Your task to perform on an android device: turn off location history Image 0: 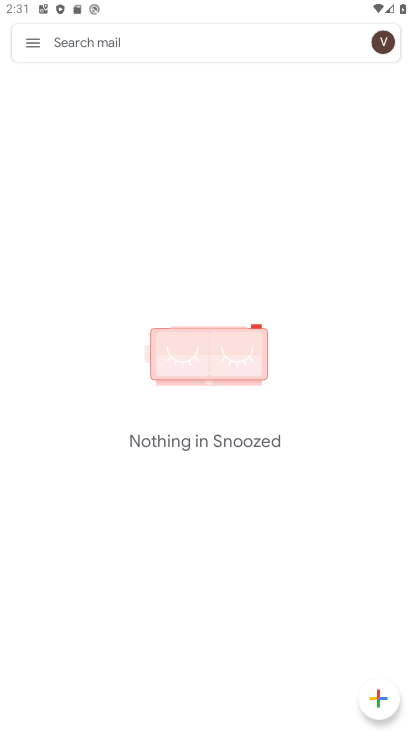
Step 0: press home button
Your task to perform on an android device: turn off location history Image 1: 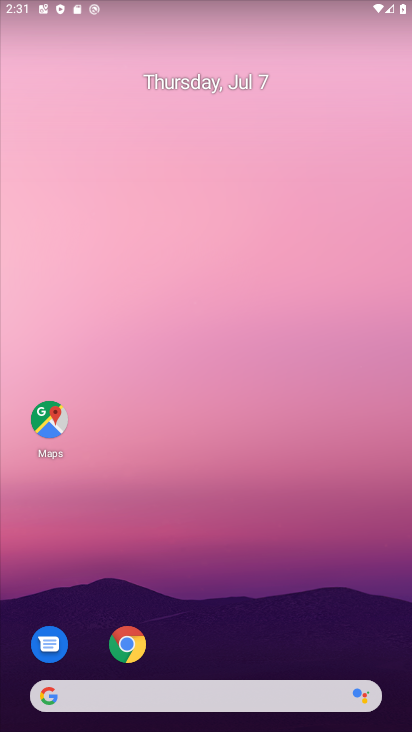
Step 1: drag from (220, 631) to (234, 181)
Your task to perform on an android device: turn off location history Image 2: 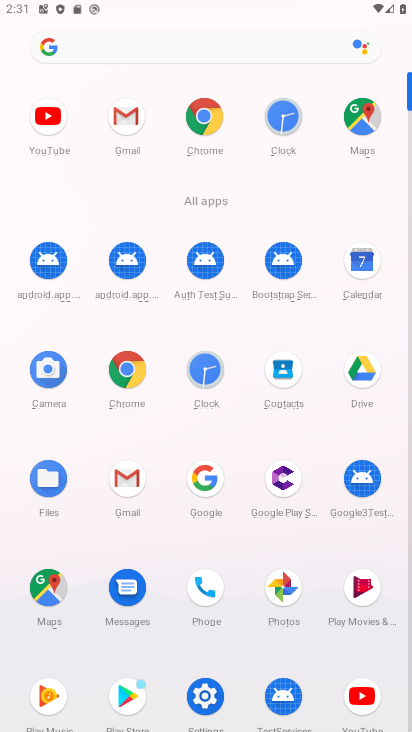
Step 2: click (208, 701)
Your task to perform on an android device: turn off location history Image 3: 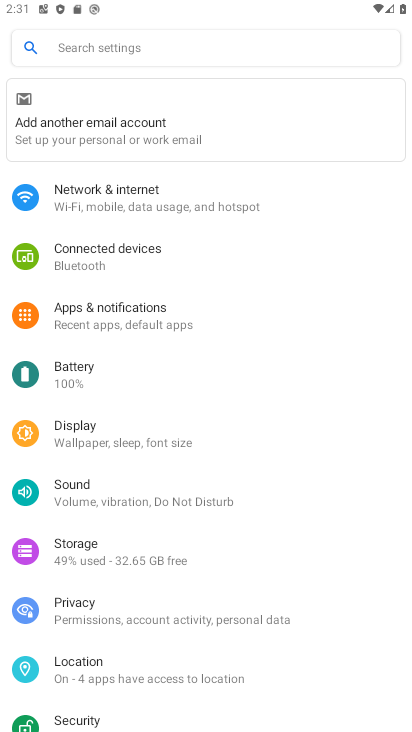
Step 3: click (94, 661)
Your task to perform on an android device: turn off location history Image 4: 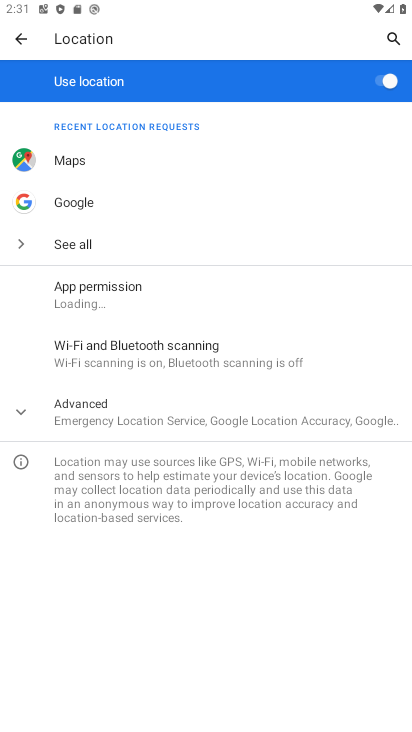
Step 4: click (80, 405)
Your task to perform on an android device: turn off location history Image 5: 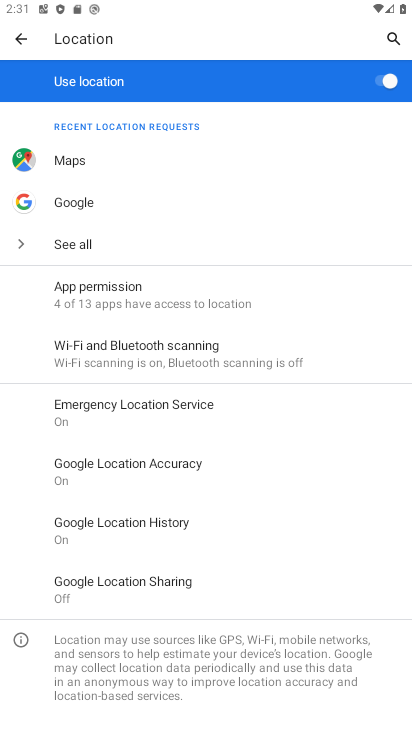
Step 5: click (144, 517)
Your task to perform on an android device: turn off location history Image 6: 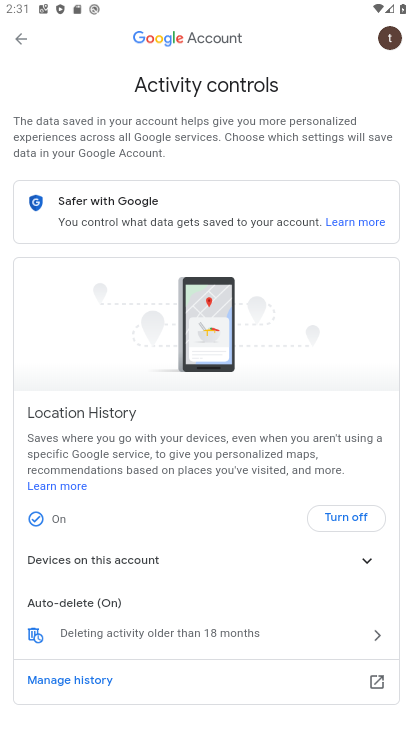
Step 6: click (348, 517)
Your task to perform on an android device: turn off location history Image 7: 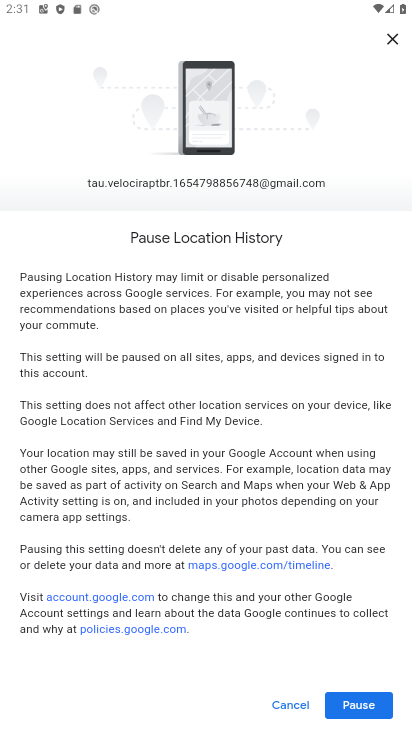
Step 7: click (368, 705)
Your task to perform on an android device: turn off location history Image 8: 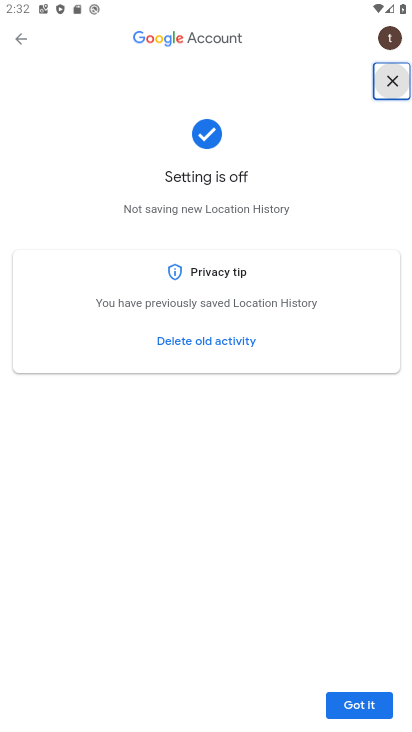
Step 8: click (358, 706)
Your task to perform on an android device: turn off location history Image 9: 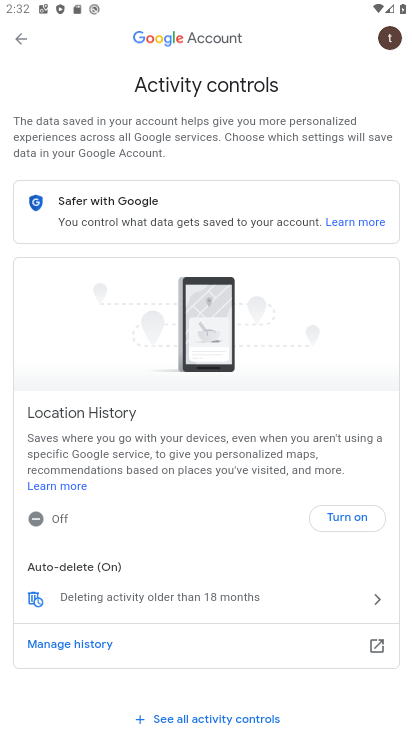
Step 9: task complete